Your task to perform on an android device: Do I have any events tomorrow? Image 0: 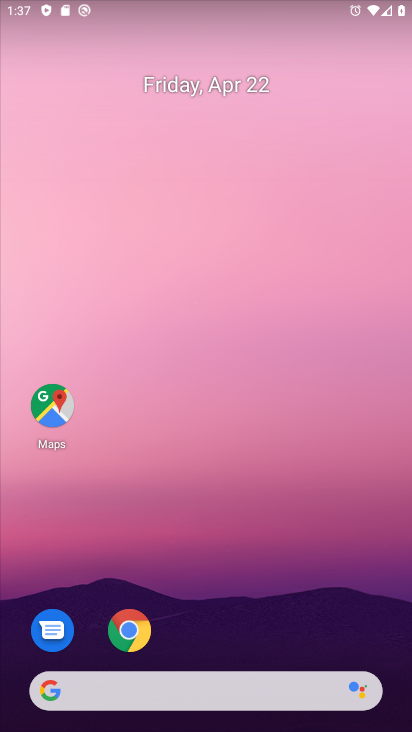
Step 0: drag from (383, 597) to (326, 71)
Your task to perform on an android device: Do I have any events tomorrow? Image 1: 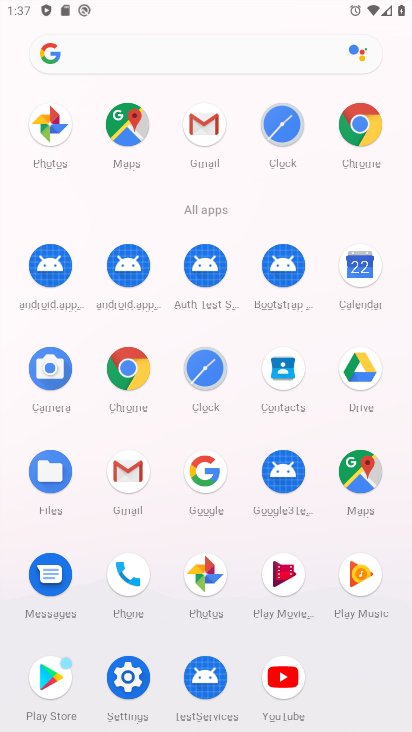
Step 1: click (363, 274)
Your task to perform on an android device: Do I have any events tomorrow? Image 2: 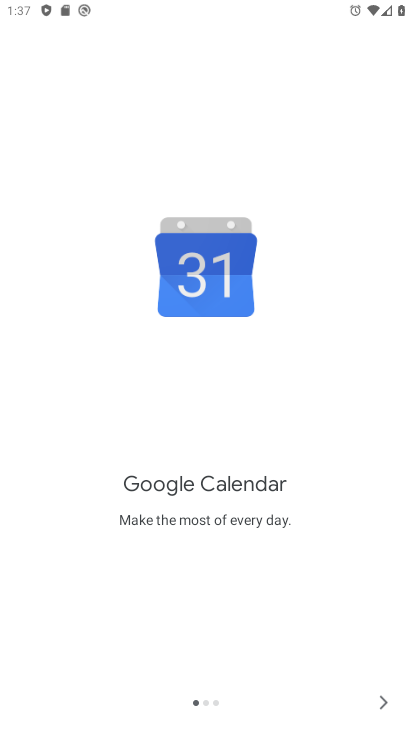
Step 2: click (385, 693)
Your task to perform on an android device: Do I have any events tomorrow? Image 3: 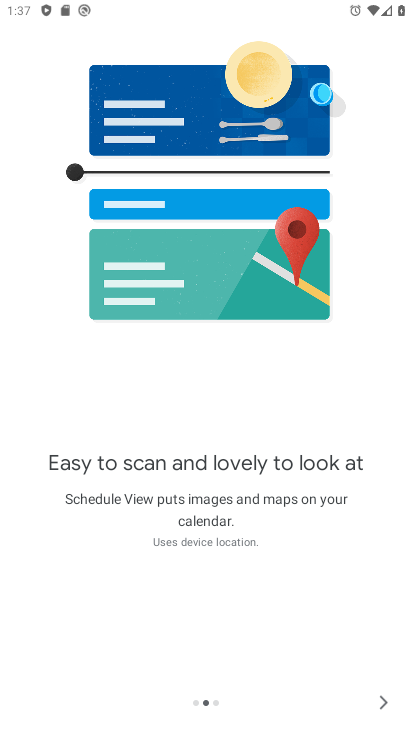
Step 3: click (385, 693)
Your task to perform on an android device: Do I have any events tomorrow? Image 4: 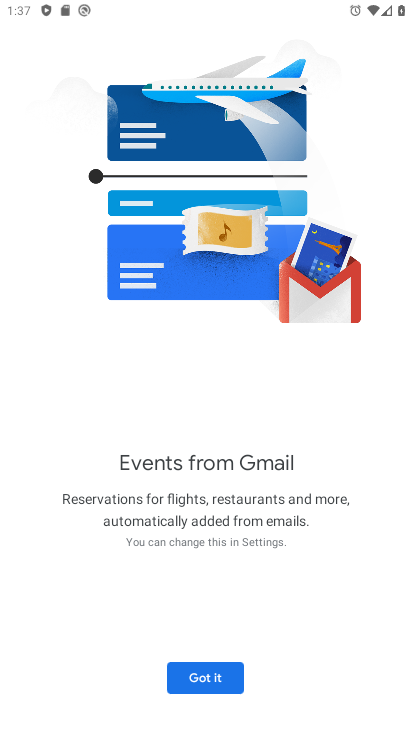
Step 4: click (228, 682)
Your task to perform on an android device: Do I have any events tomorrow? Image 5: 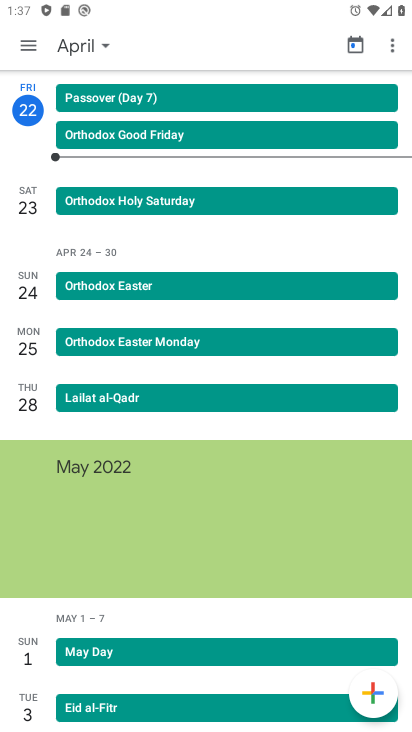
Step 5: click (31, 205)
Your task to perform on an android device: Do I have any events tomorrow? Image 6: 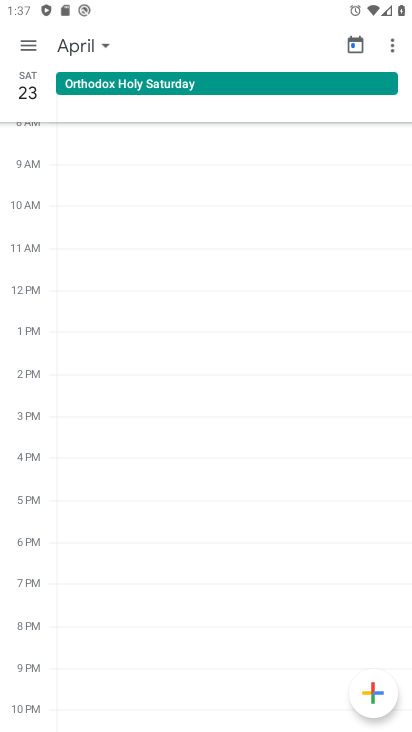
Step 6: task complete